Your task to perform on an android device: Open settings Image 0: 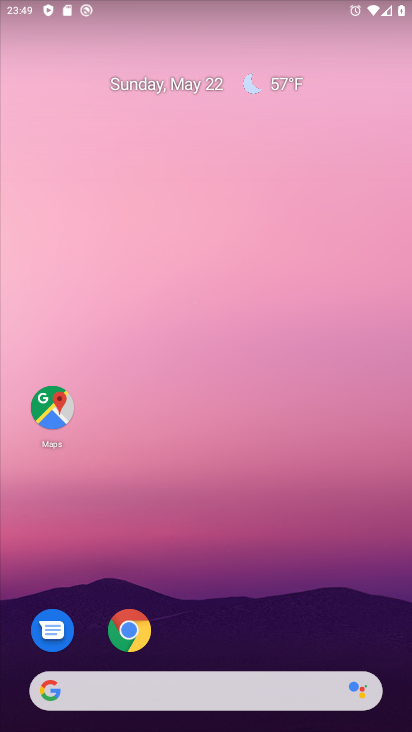
Step 0: drag from (207, 405) to (111, 43)
Your task to perform on an android device: Open settings Image 1: 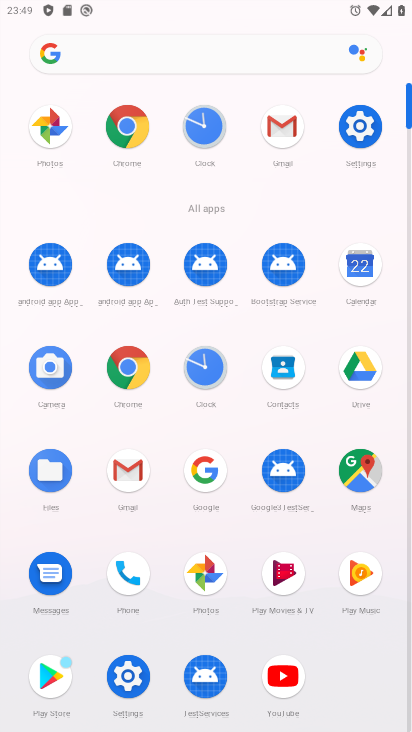
Step 1: click (363, 119)
Your task to perform on an android device: Open settings Image 2: 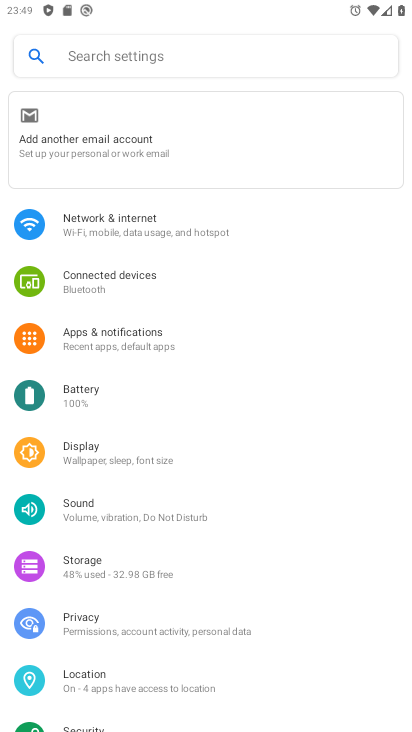
Step 2: task complete